Your task to perform on an android device: delete a single message in the gmail app Image 0: 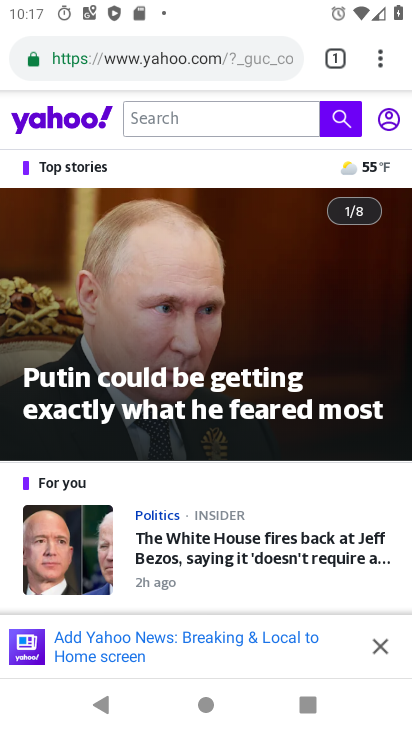
Step 0: press back button
Your task to perform on an android device: delete a single message in the gmail app Image 1: 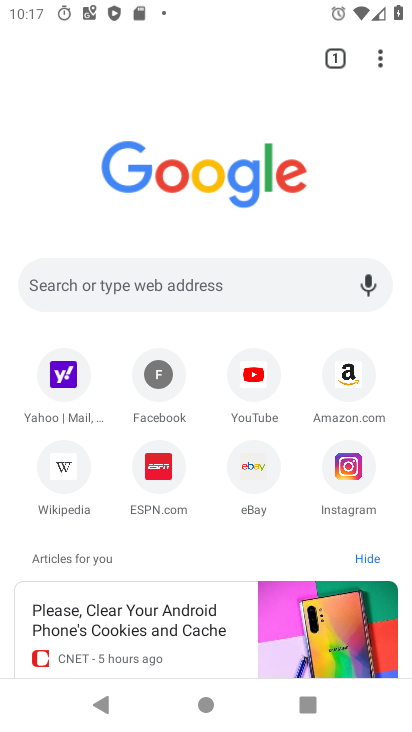
Step 1: press back button
Your task to perform on an android device: delete a single message in the gmail app Image 2: 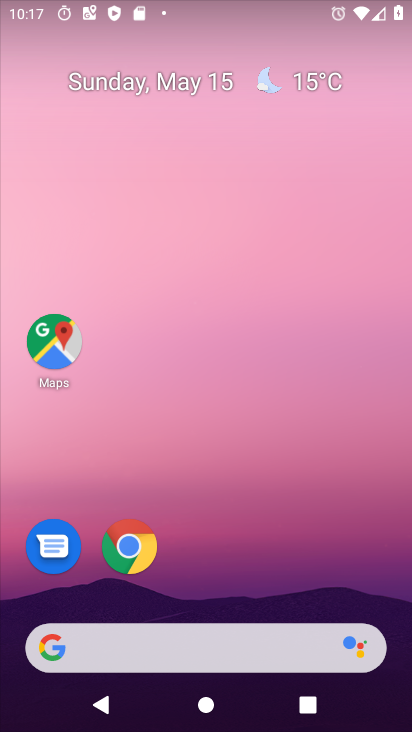
Step 2: drag from (235, 658) to (235, 181)
Your task to perform on an android device: delete a single message in the gmail app Image 3: 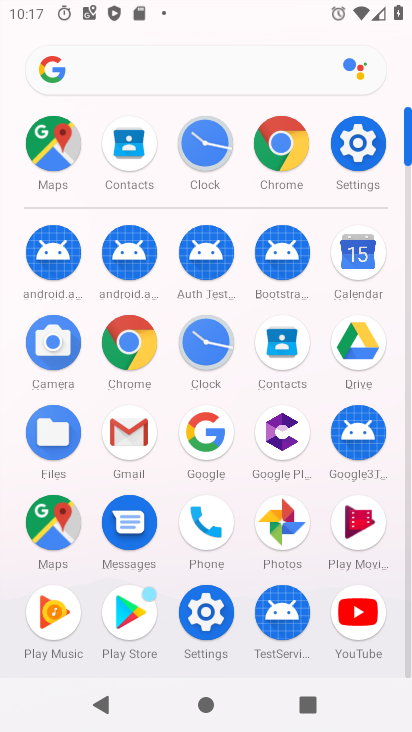
Step 3: click (125, 446)
Your task to perform on an android device: delete a single message in the gmail app Image 4: 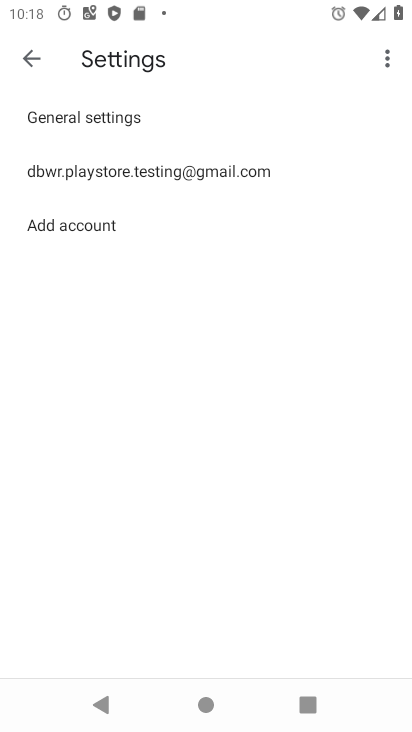
Step 4: press back button
Your task to perform on an android device: delete a single message in the gmail app Image 5: 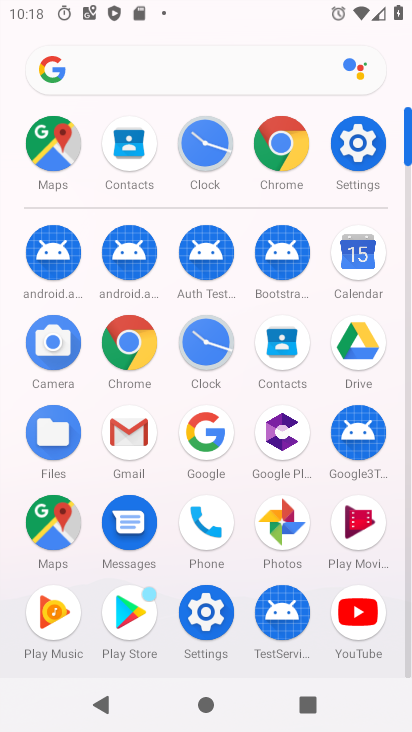
Step 5: press back button
Your task to perform on an android device: delete a single message in the gmail app Image 6: 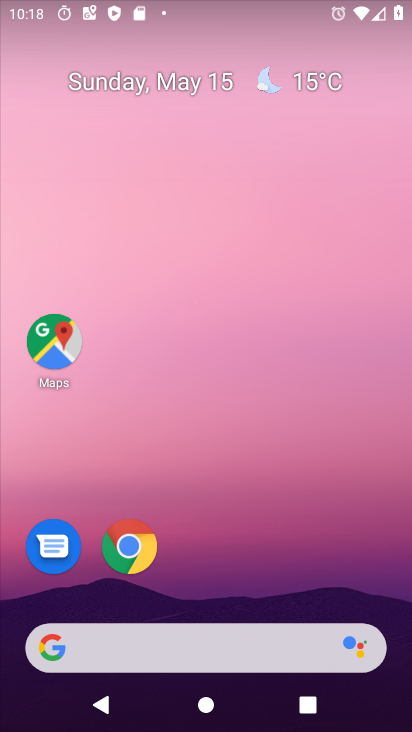
Step 6: drag from (277, 625) to (254, 203)
Your task to perform on an android device: delete a single message in the gmail app Image 7: 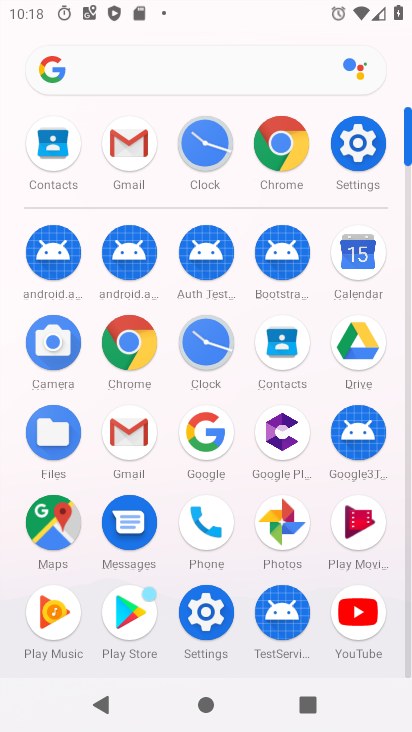
Step 7: click (128, 430)
Your task to perform on an android device: delete a single message in the gmail app Image 8: 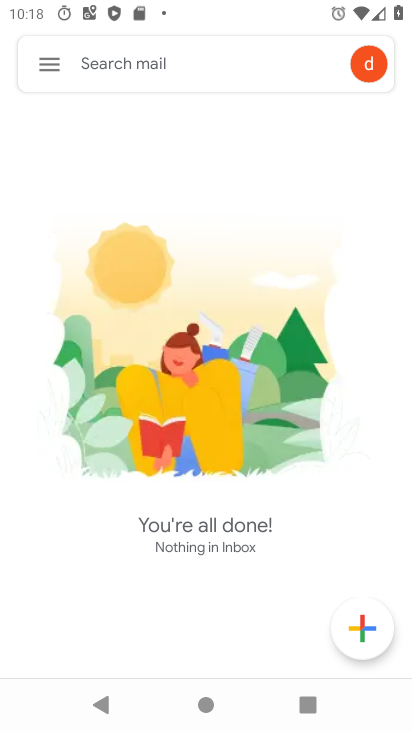
Step 8: click (53, 59)
Your task to perform on an android device: delete a single message in the gmail app Image 9: 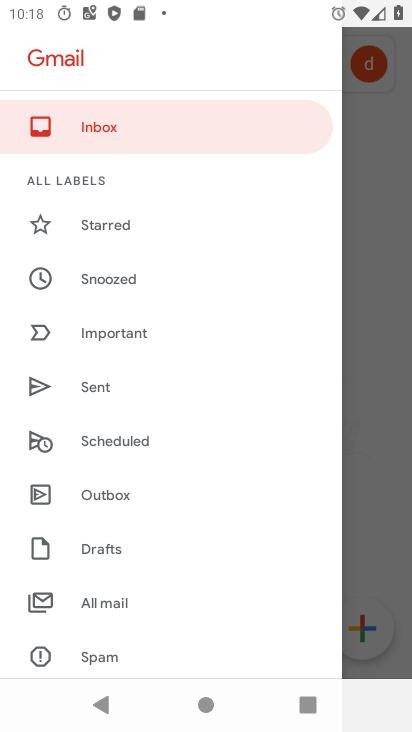
Step 9: click (111, 596)
Your task to perform on an android device: delete a single message in the gmail app Image 10: 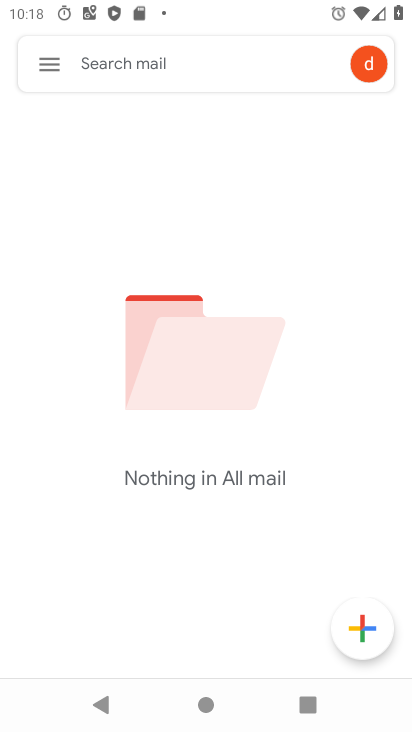
Step 10: task complete